Your task to perform on an android device: Go to Reddit.com Image 0: 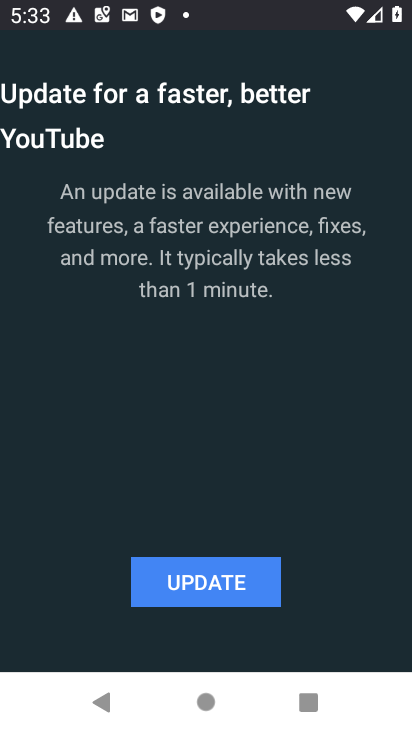
Step 0: press home button
Your task to perform on an android device: Go to Reddit.com Image 1: 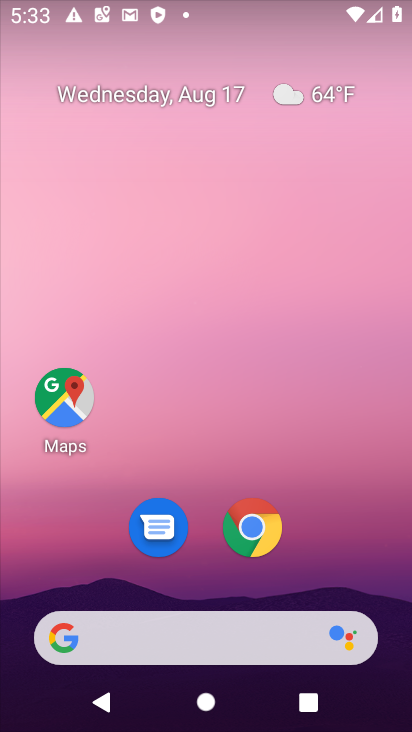
Step 1: drag from (164, 241) to (153, 168)
Your task to perform on an android device: Go to Reddit.com Image 2: 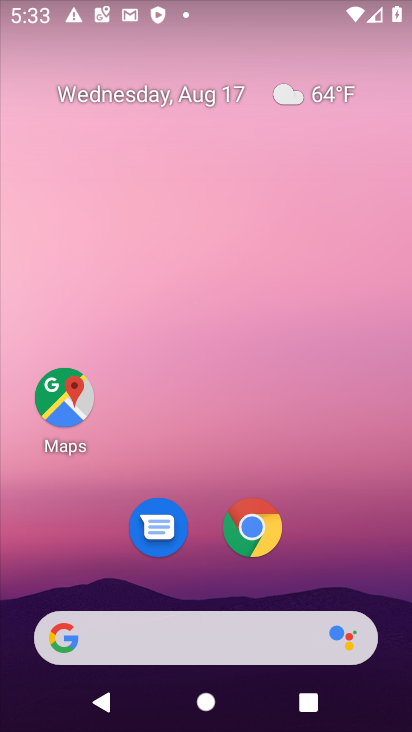
Step 2: drag from (176, 529) to (157, 80)
Your task to perform on an android device: Go to Reddit.com Image 3: 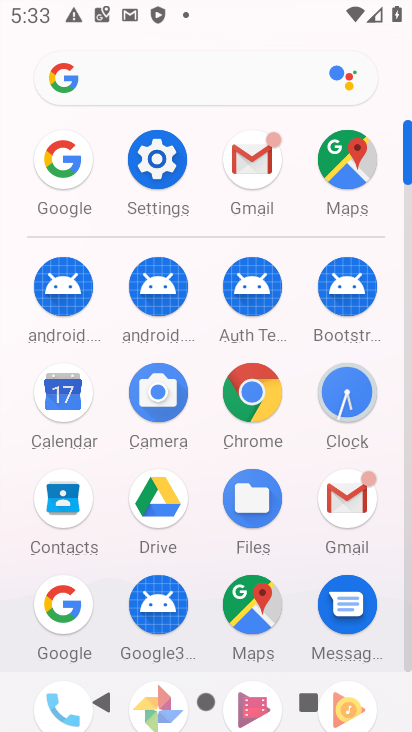
Step 3: click (66, 604)
Your task to perform on an android device: Go to Reddit.com Image 4: 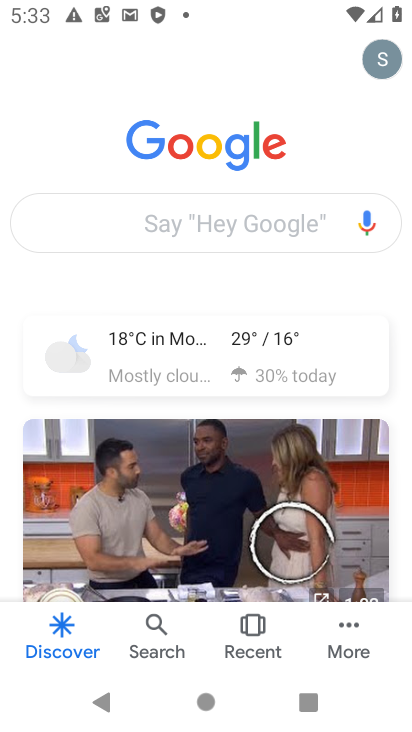
Step 4: click (105, 231)
Your task to perform on an android device: Go to Reddit.com Image 5: 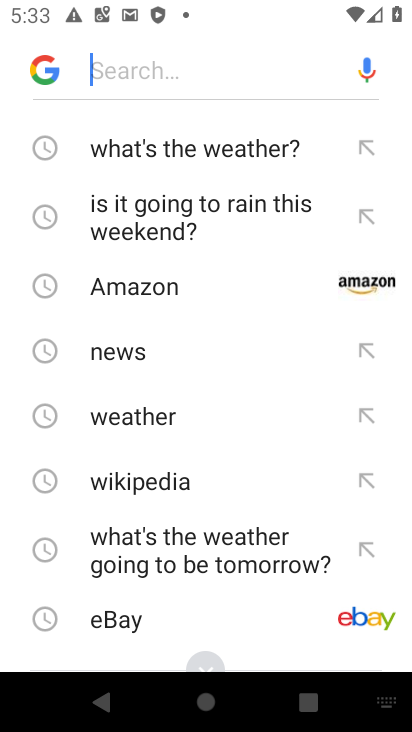
Step 5: drag from (157, 621) to (146, 231)
Your task to perform on an android device: Go to Reddit.com Image 6: 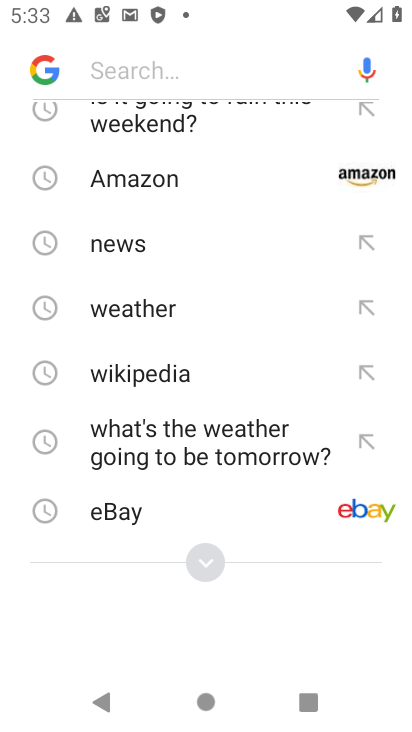
Step 6: click (200, 561)
Your task to perform on an android device: Go to Reddit.com Image 7: 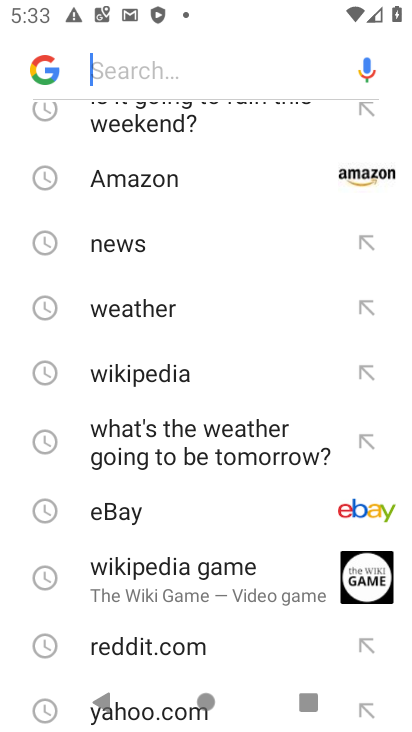
Step 7: drag from (175, 614) to (167, 259)
Your task to perform on an android device: Go to Reddit.com Image 8: 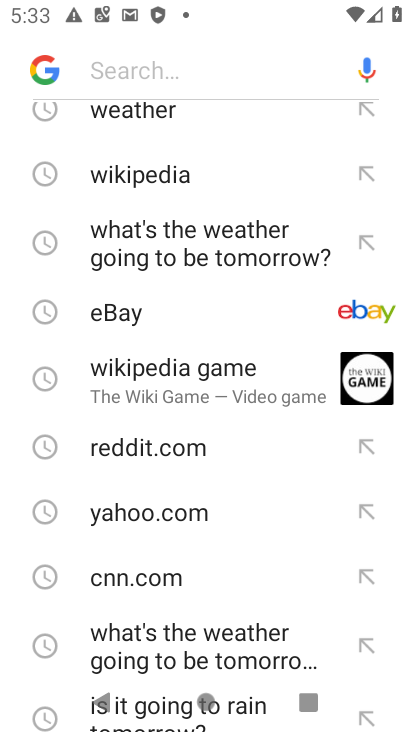
Step 8: click (126, 453)
Your task to perform on an android device: Go to Reddit.com Image 9: 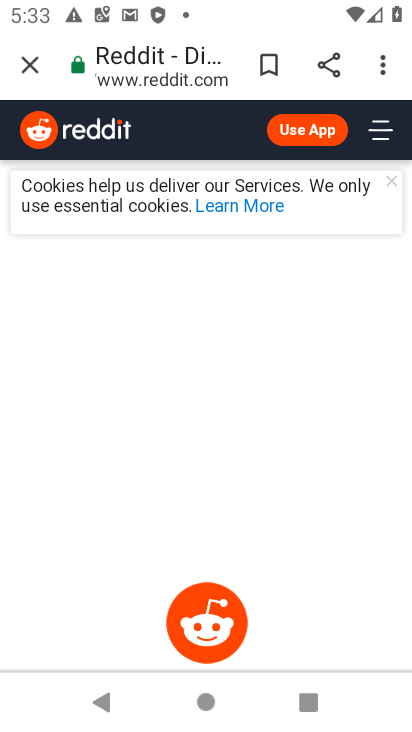
Step 9: task complete